Your task to perform on an android device: What is the news today? Image 0: 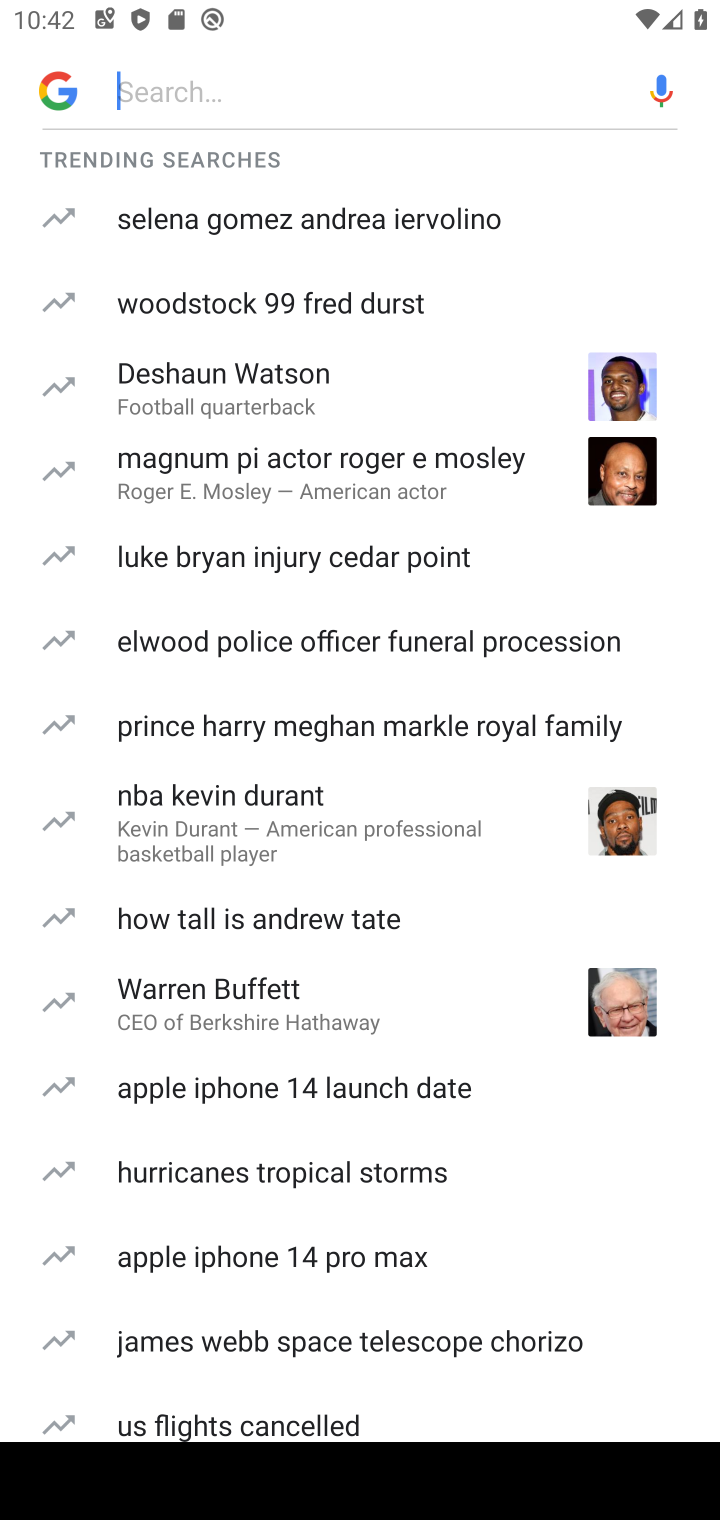
Step 0: press back button
Your task to perform on an android device: What is the news today? Image 1: 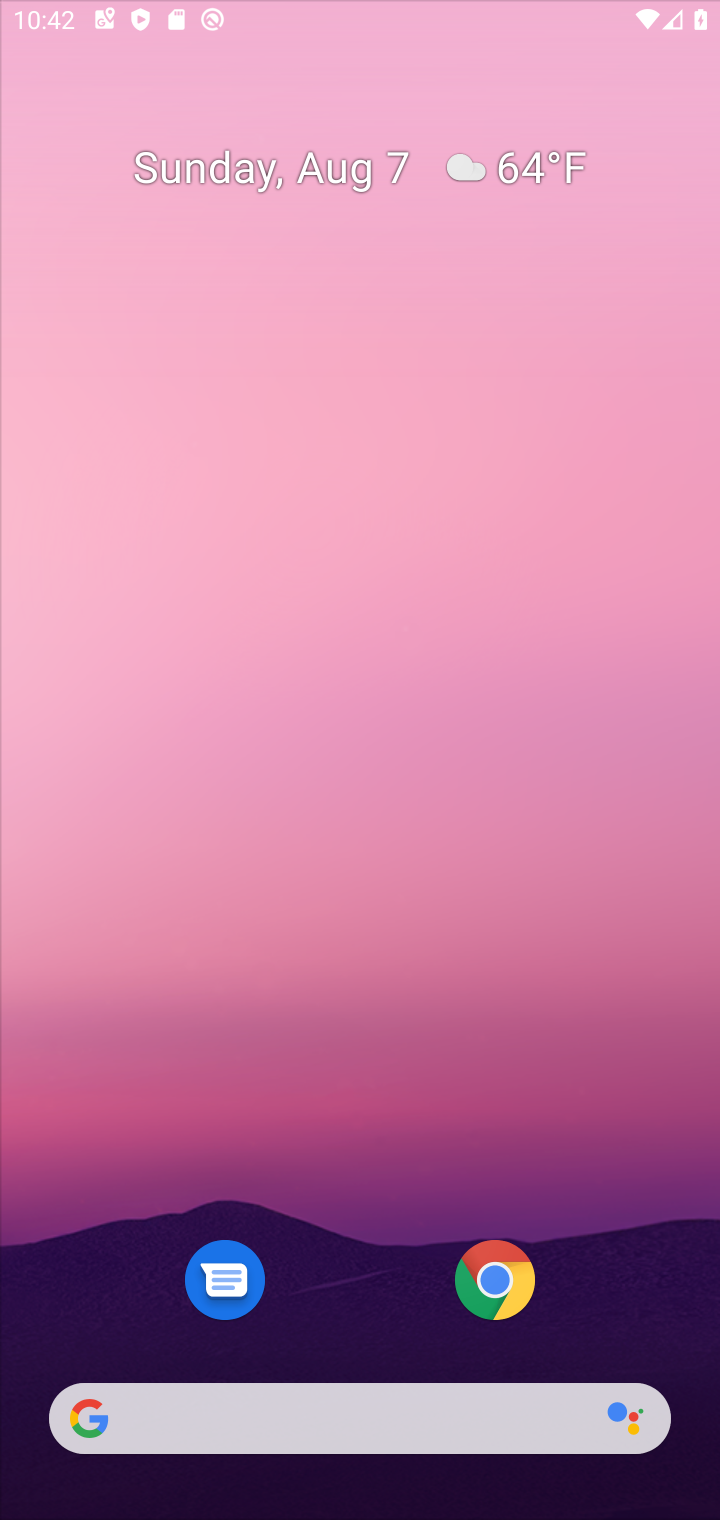
Step 1: press back button
Your task to perform on an android device: What is the news today? Image 2: 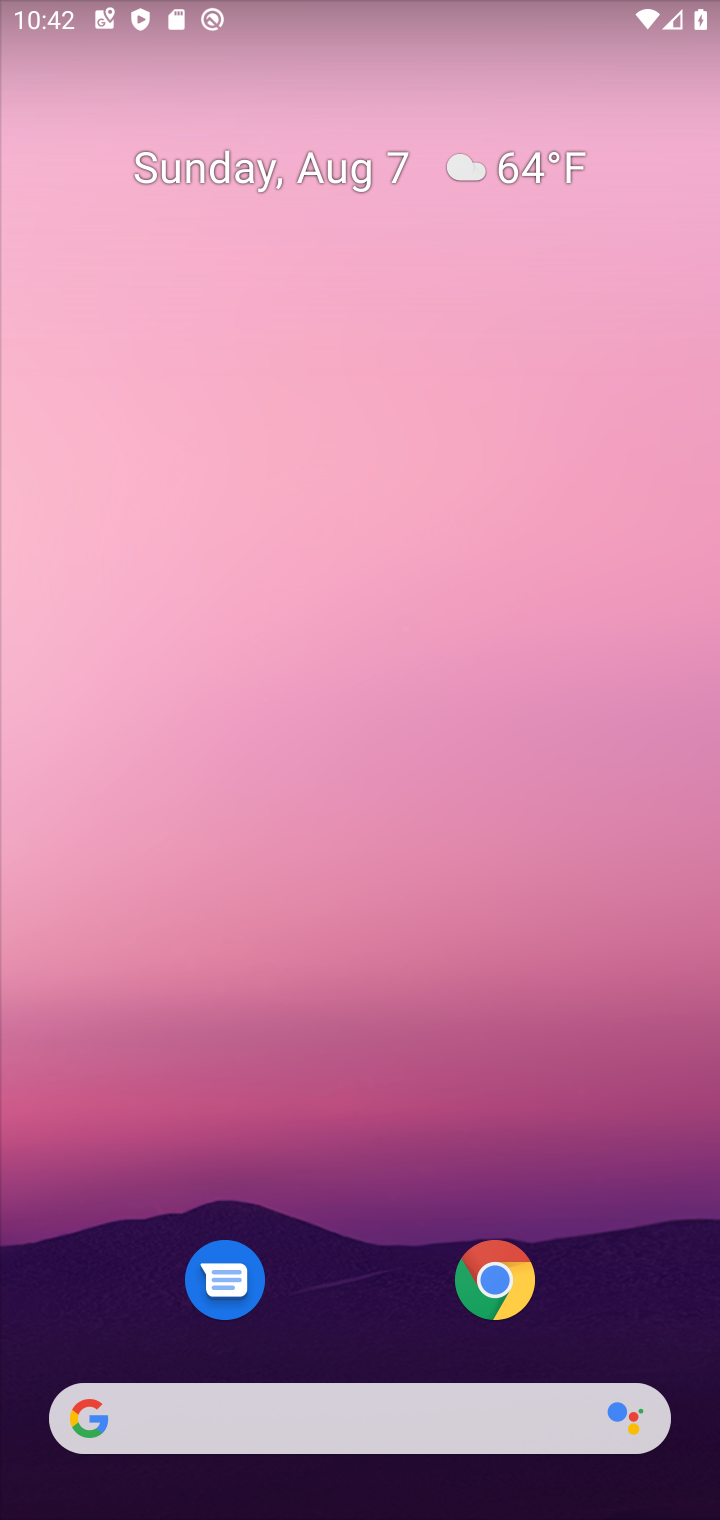
Step 2: drag from (366, 815) to (366, 15)
Your task to perform on an android device: What is the news today? Image 3: 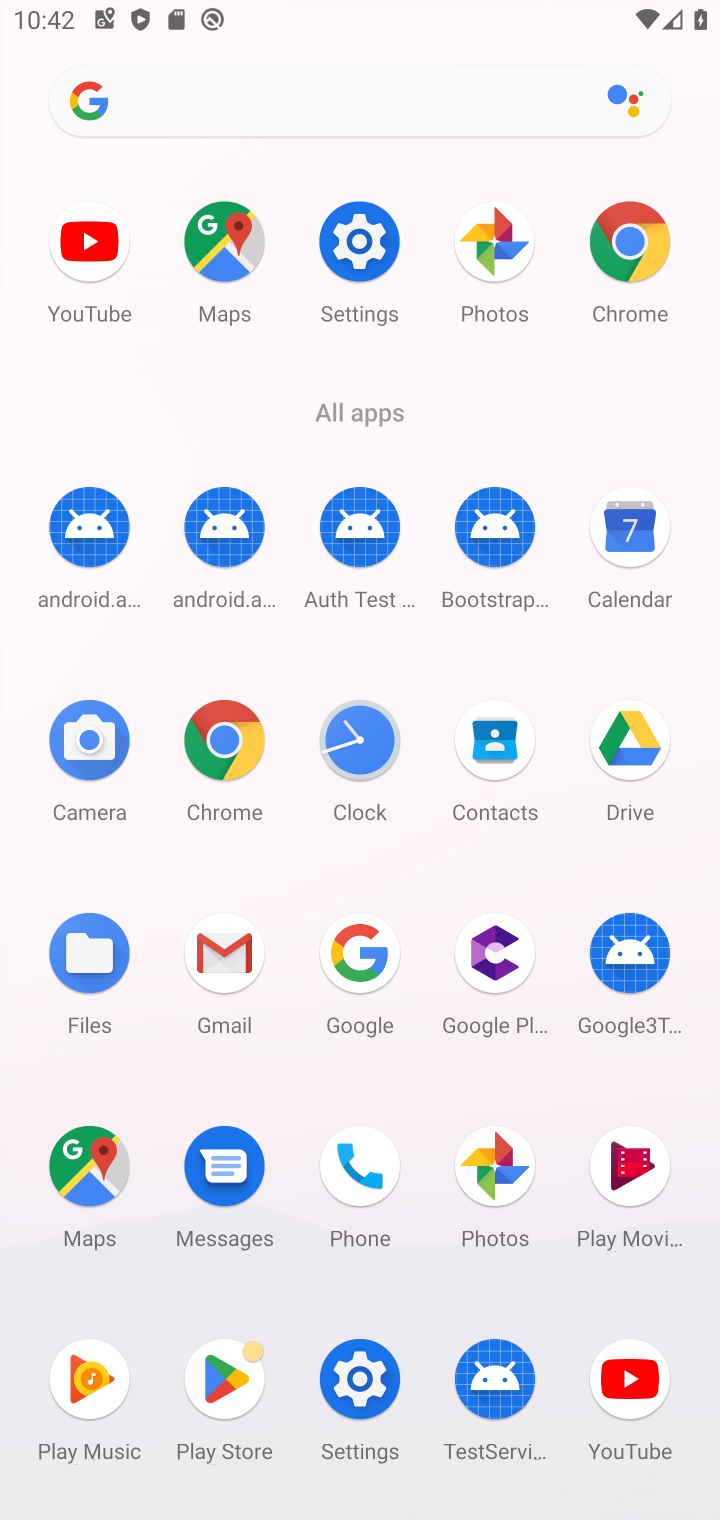
Step 3: click (243, 107)
Your task to perform on an android device: What is the news today? Image 4: 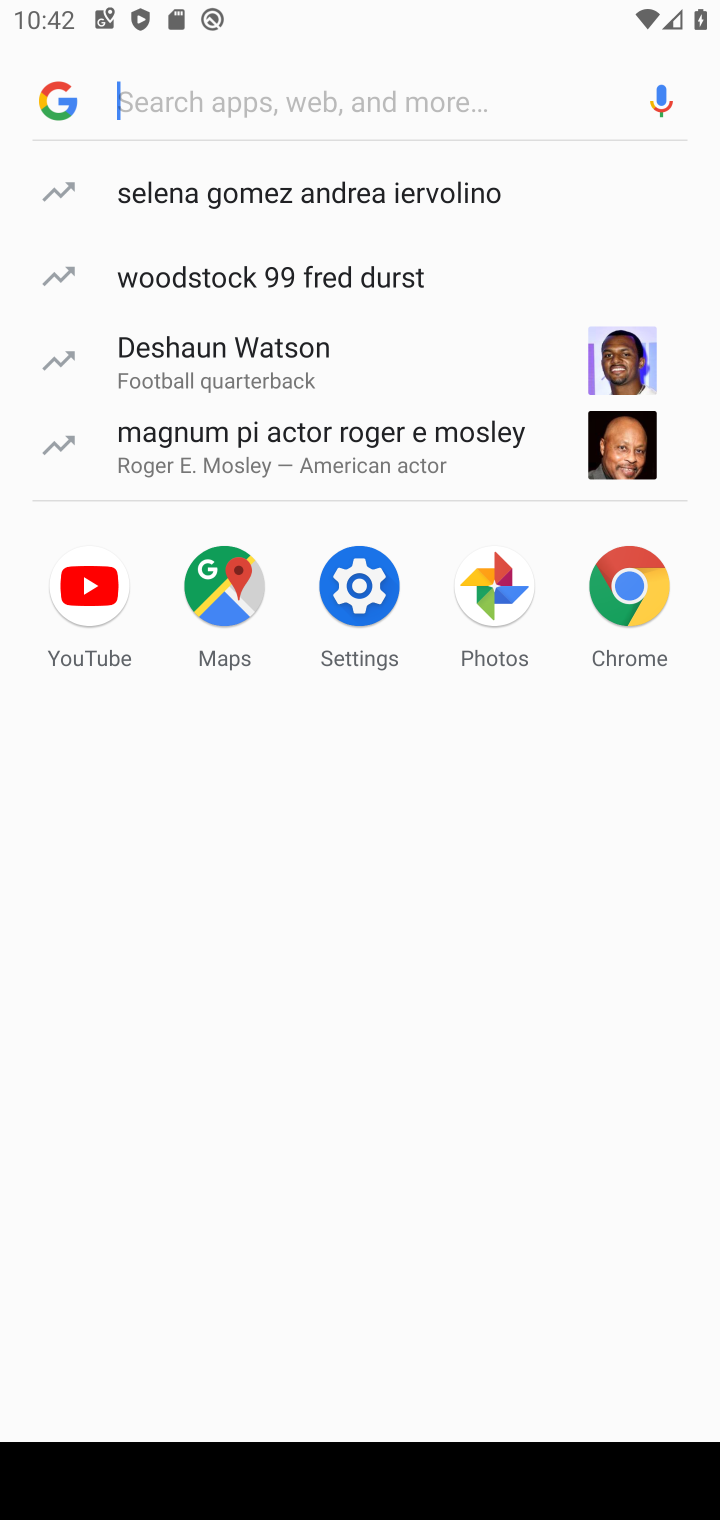
Step 4: type "news today"
Your task to perform on an android device: What is the news today? Image 5: 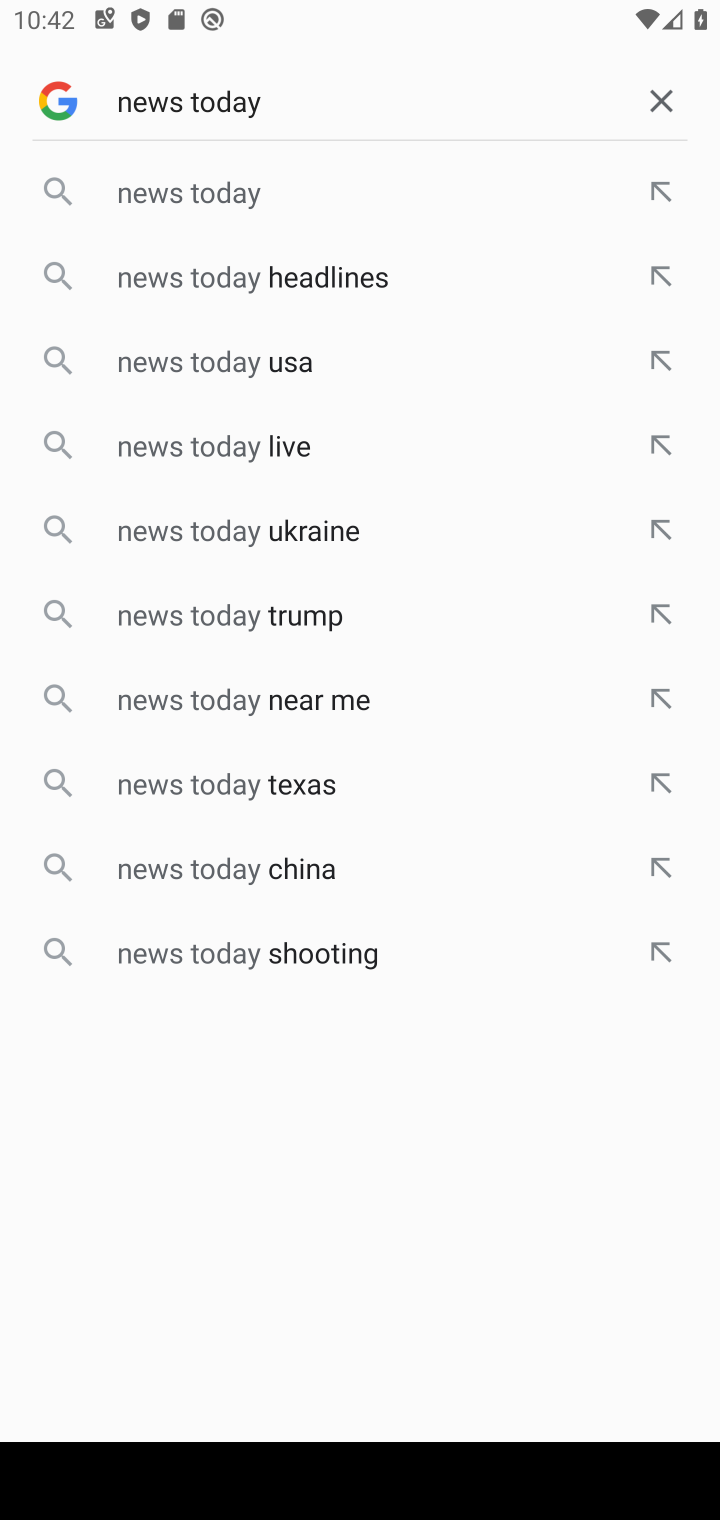
Step 5: click (168, 196)
Your task to perform on an android device: What is the news today? Image 6: 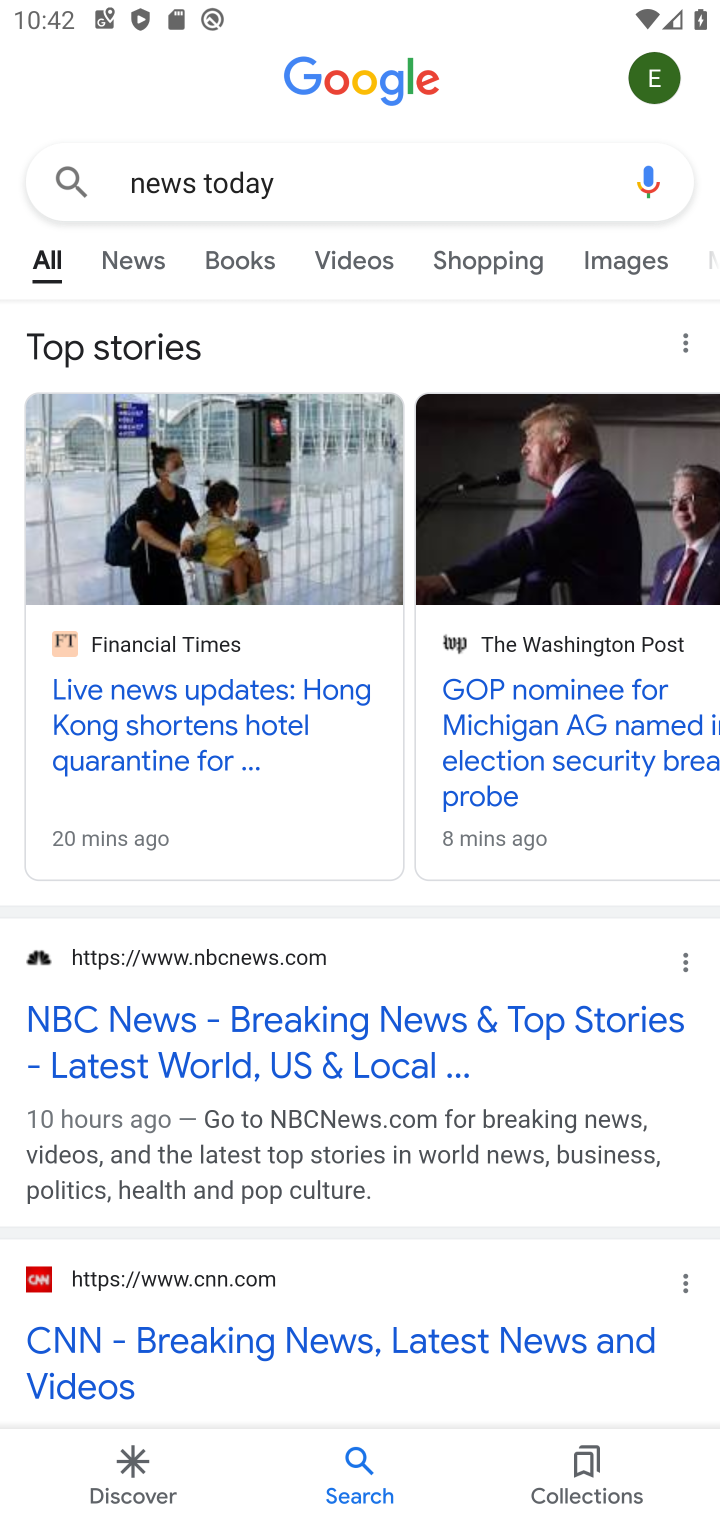
Step 6: task complete